Your task to perform on an android device: add a label to a message in the gmail app Image 0: 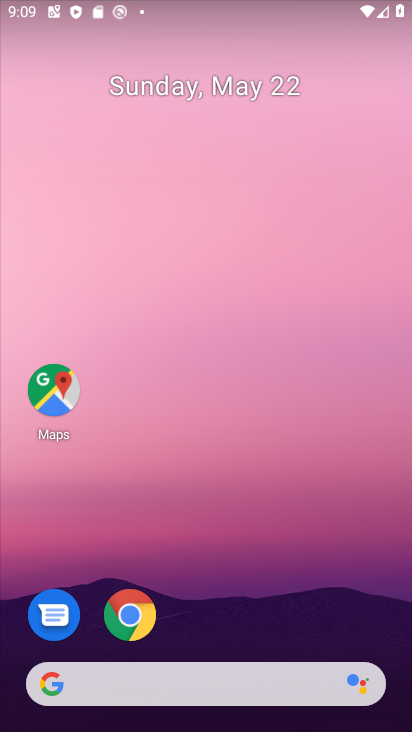
Step 0: drag from (230, 627) to (251, 301)
Your task to perform on an android device: add a label to a message in the gmail app Image 1: 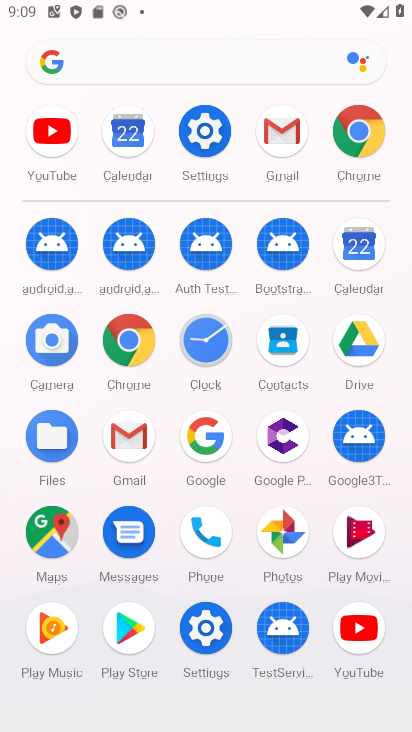
Step 1: click (275, 131)
Your task to perform on an android device: add a label to a message in the gmail app Image 2: 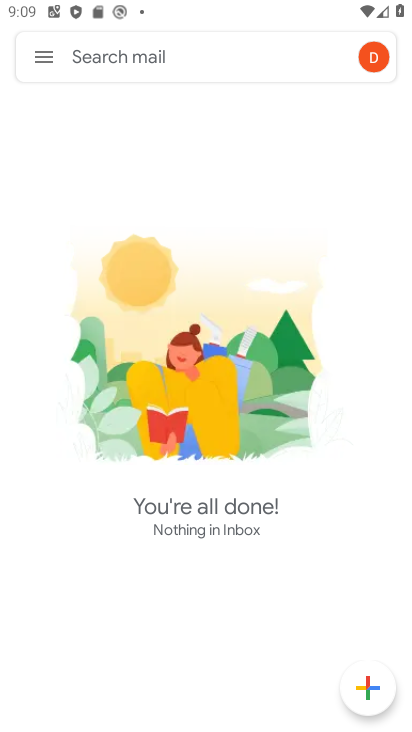
Step 2: click (42, 50)
Your task to perform on an android device: add a label to a message in the gmail app Image 3: 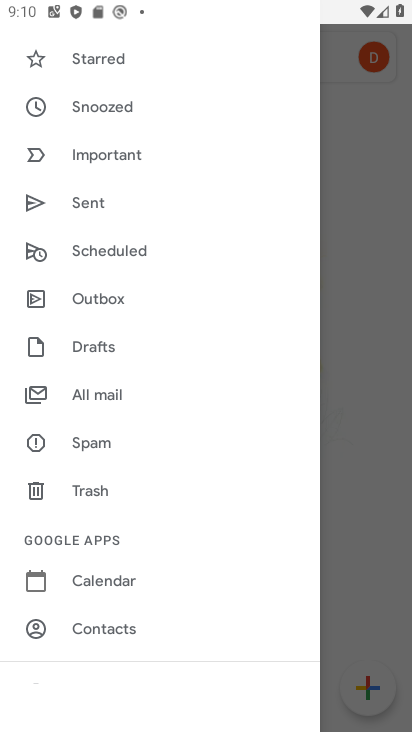
Step 3: task complete